Your task to perform on an android device: Check the news Image 0: 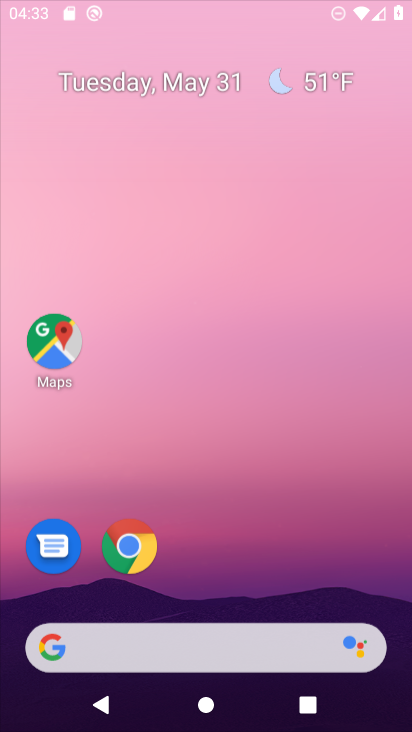
Step 0: drag from (215, 565) to (206, 277)
Your task to perform on an android device: Check the news Image 1: 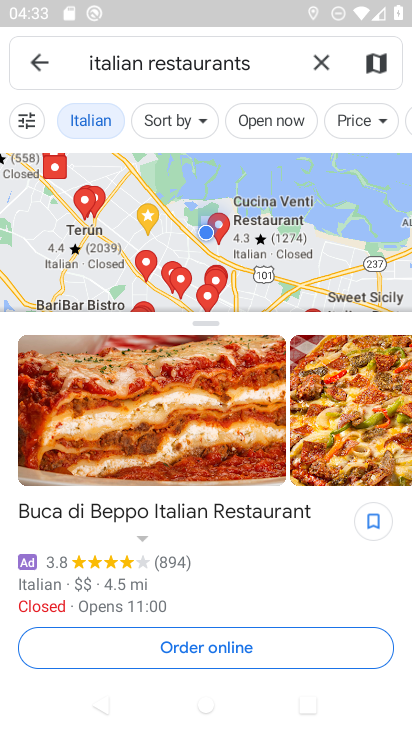
Step 1: press home button
Your task to perform on an android device: Check the news Image 2: 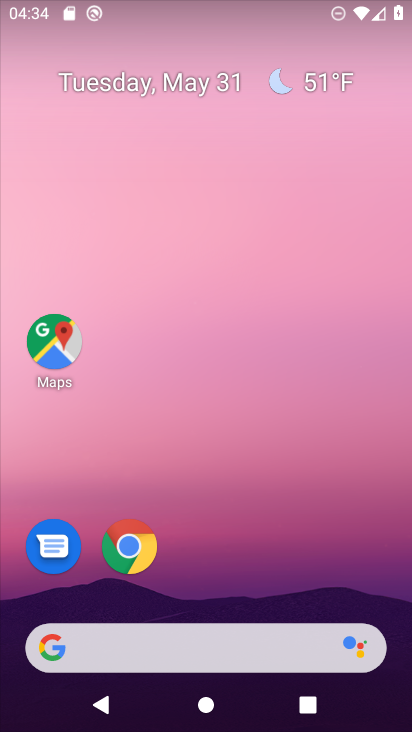
Step 2: drag from (184, 599) to (211, 272)
Your task to perform on an android device: Check the news Image 3: 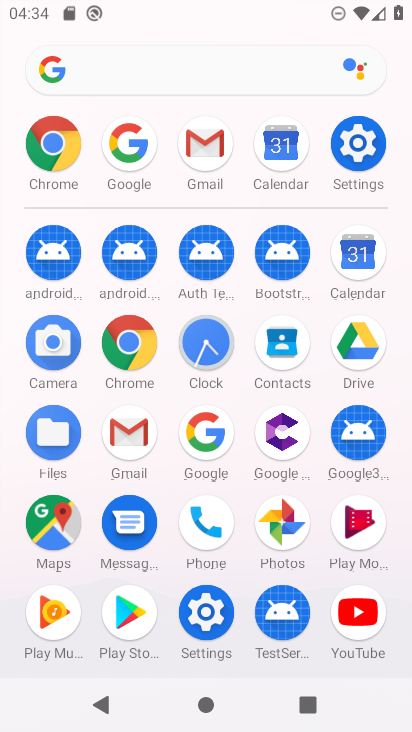
Step 3: click (202, 470)
Your task to perform on an android device: Check the news Image 4: 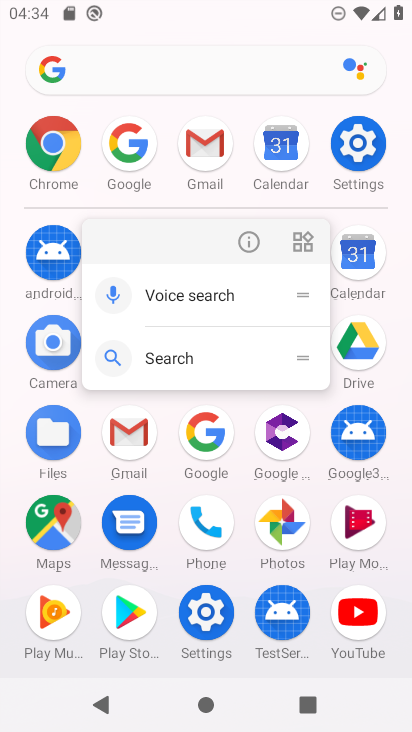
Step 4: click (198, 434)
Your task to perform on an android device: Check the news Image 5: 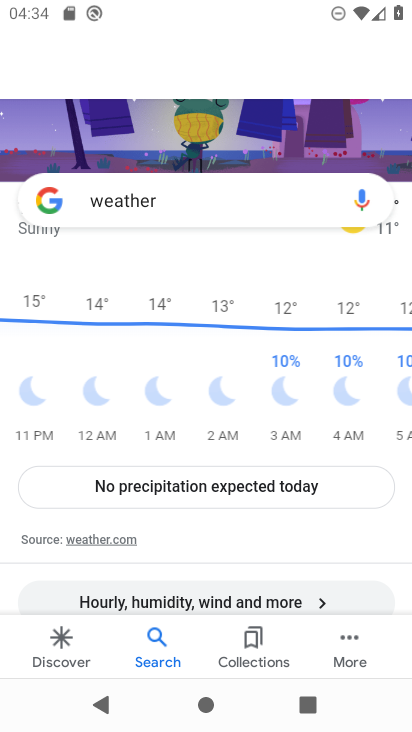
Step 5: press back button
Your task to perform on an android device: Check the news Image 6: 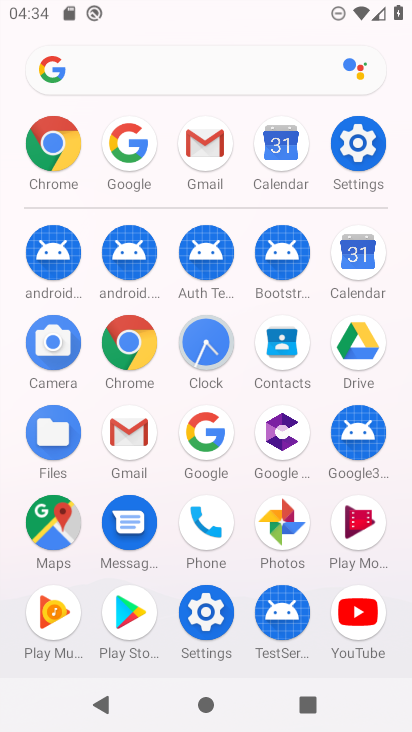
Step 6: click (220, 446)
Your task to perform on an android device: Check the news Image 7: 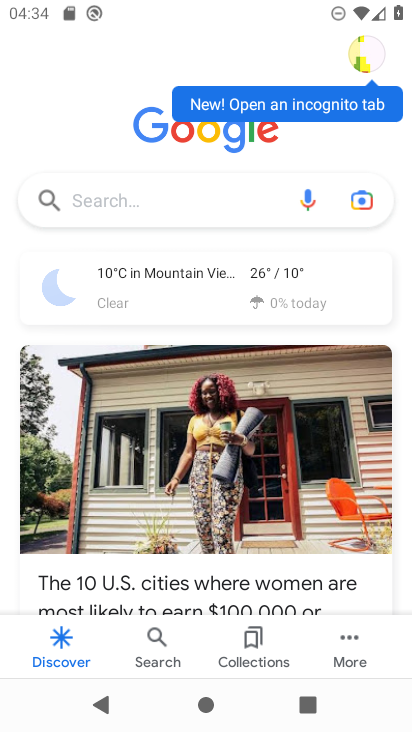
Step 7: click (159, 204)
Your task to perform on an android device: Check the news Image 8: 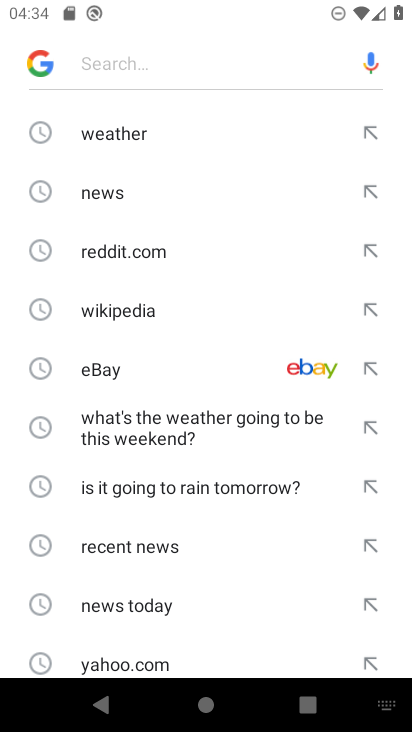
Step 8: click (119, 206)
Your task to perform on an android device: Check the news Image 9: 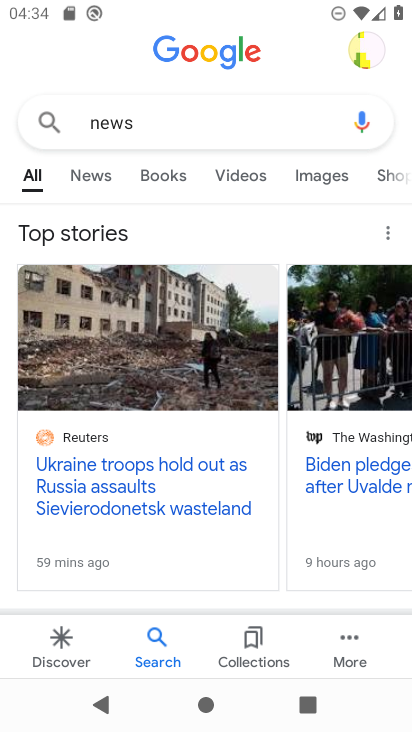
Step 9: task complete